Your task to perform on an android device: turn off translation in the chrome app Image 0: 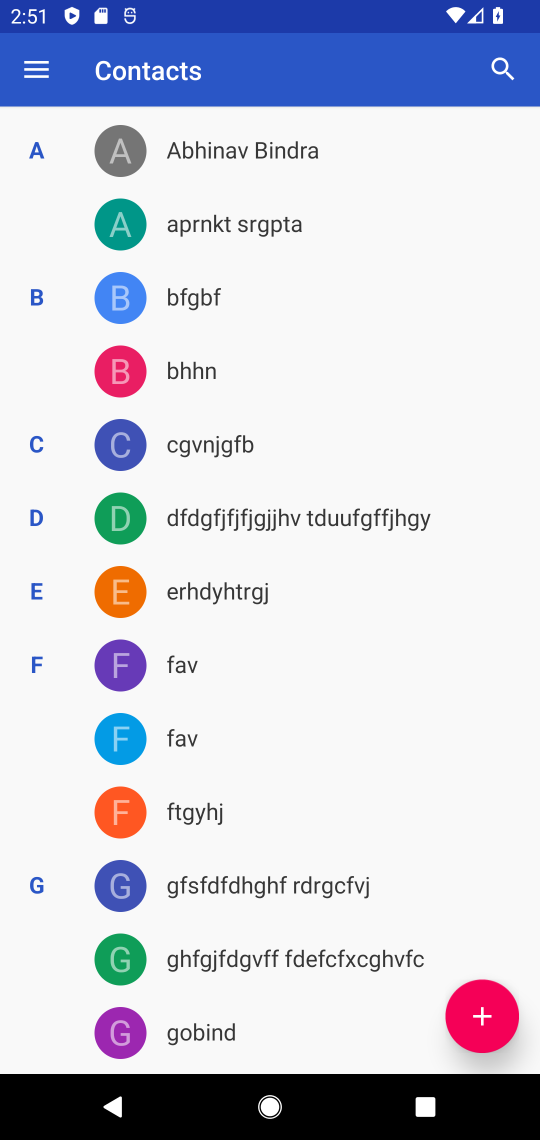
Step 0: press home button
Your task to perform on an android device: turn off translation in the chrome app Image 1: 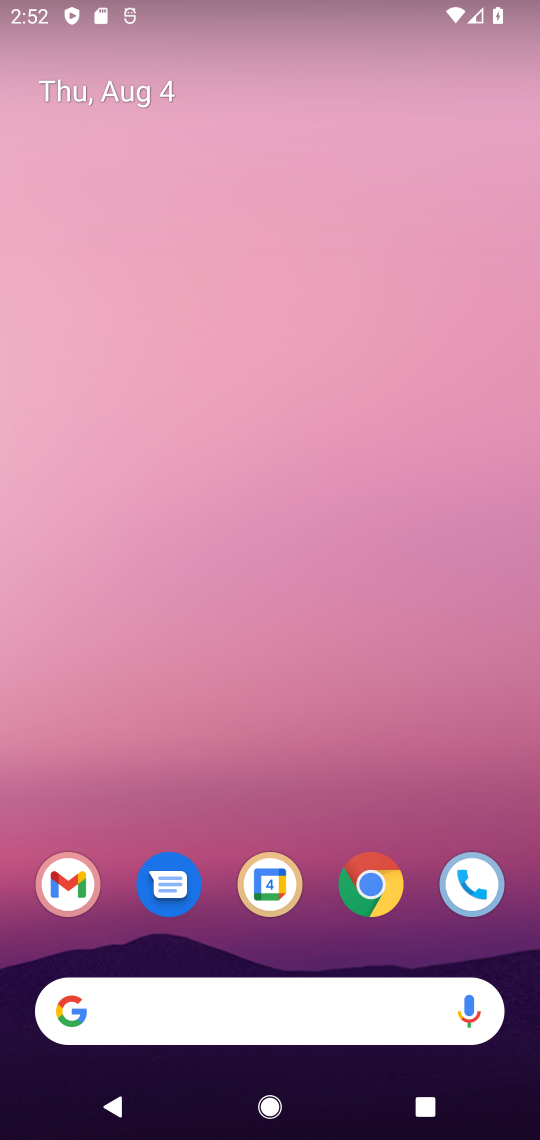
Step 1: drag from (205, 986) to (201, 340)
Your task to perform on an android device: turn off translation in the chrome app Image 2: 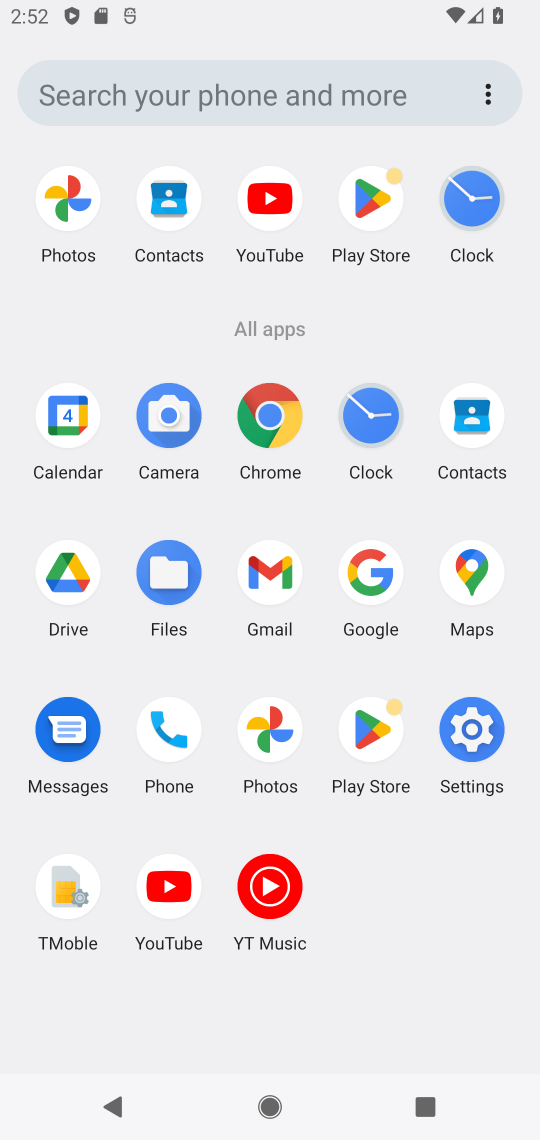
Step 2: click (276, 391)
Your task to perform on an android device: turn off translation in the chrome app Image 3: 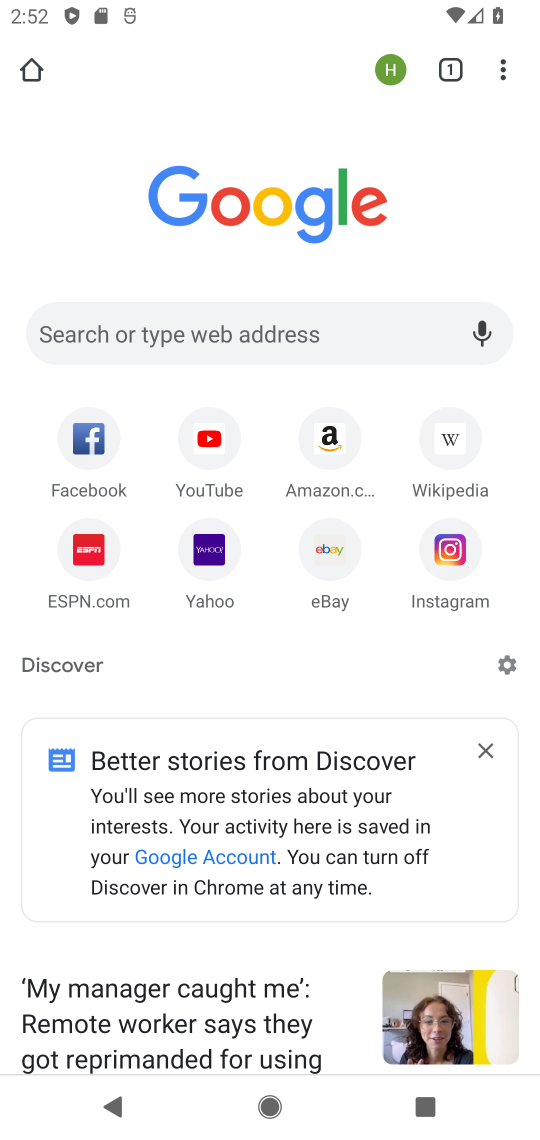
Step 3: click (505, 64)
Your task to perform on an android device: turn off translation in the chrome app Image 4: 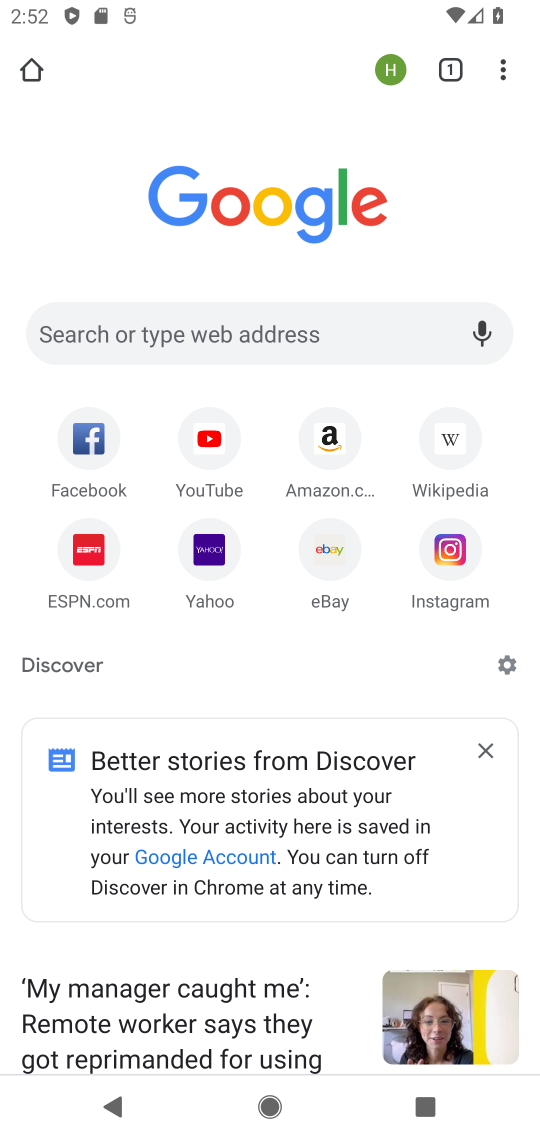
Step 4: click (505, 72)
Your task to perform on an android device: turn off translation in the chrome app Image 5: 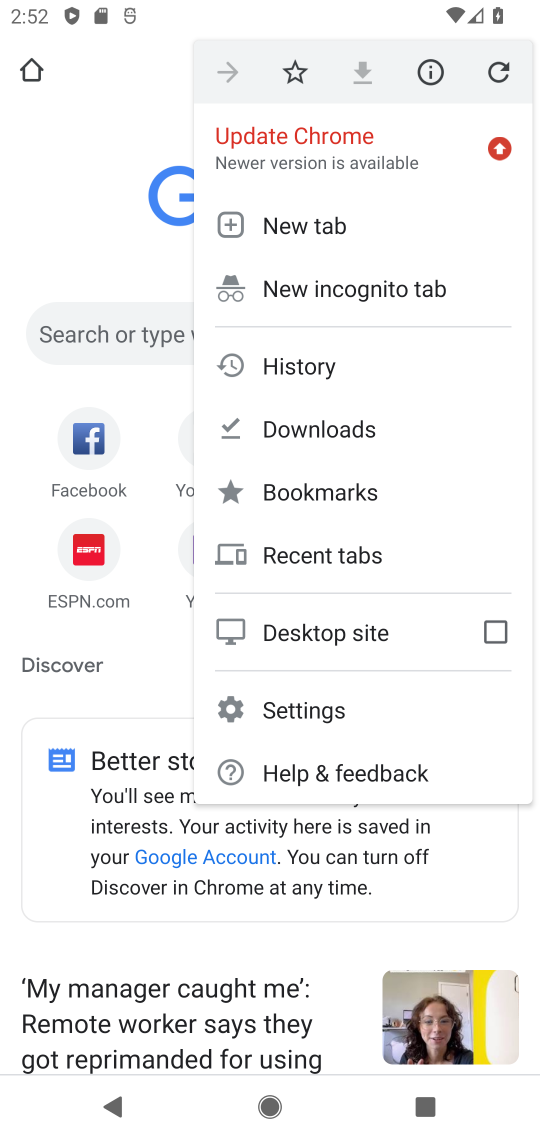
Step 5: click (305, 693)
Your task to perform on an android device: turn off translation in the chrome app Image 6: 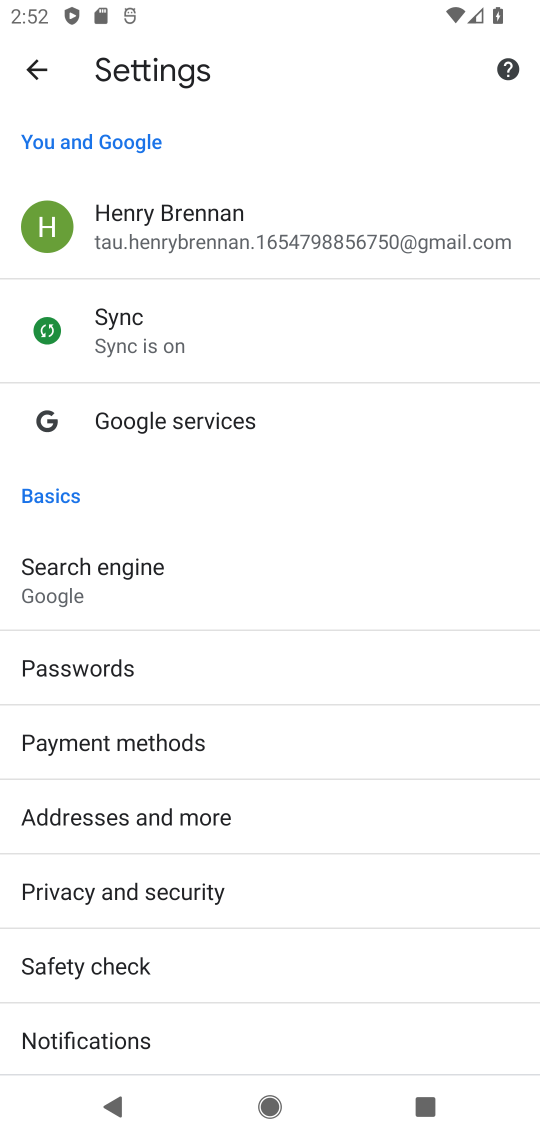
Step 6: drag from (151, 972) to (306, 333)
Your task to perform on an android device: turn off translation in the chrome app Image 7: 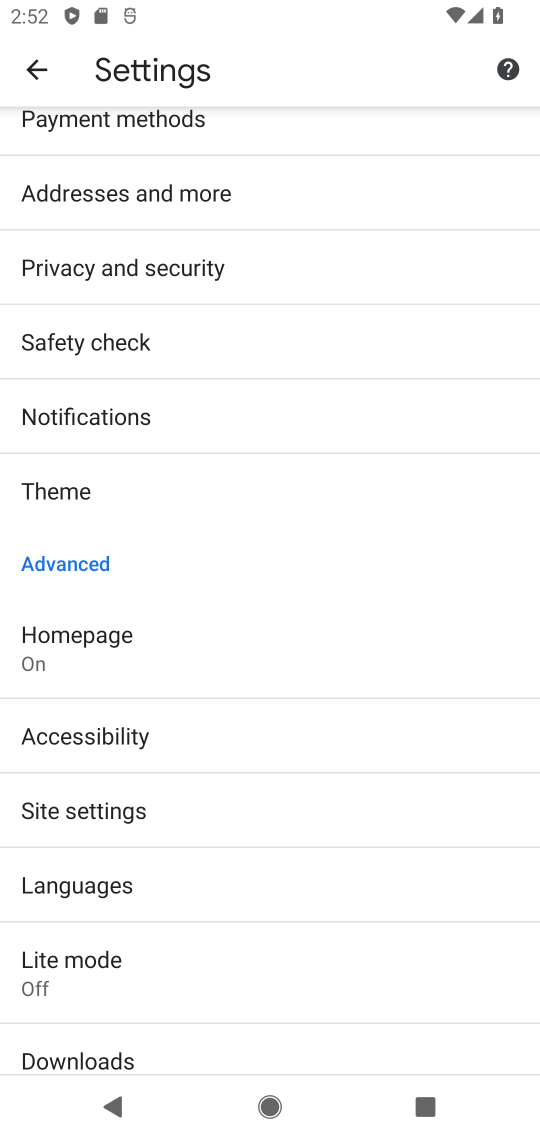
Step 7: click (133, 809)
Your task to perform on an android device: turn off translation in the chrome app Image 8: 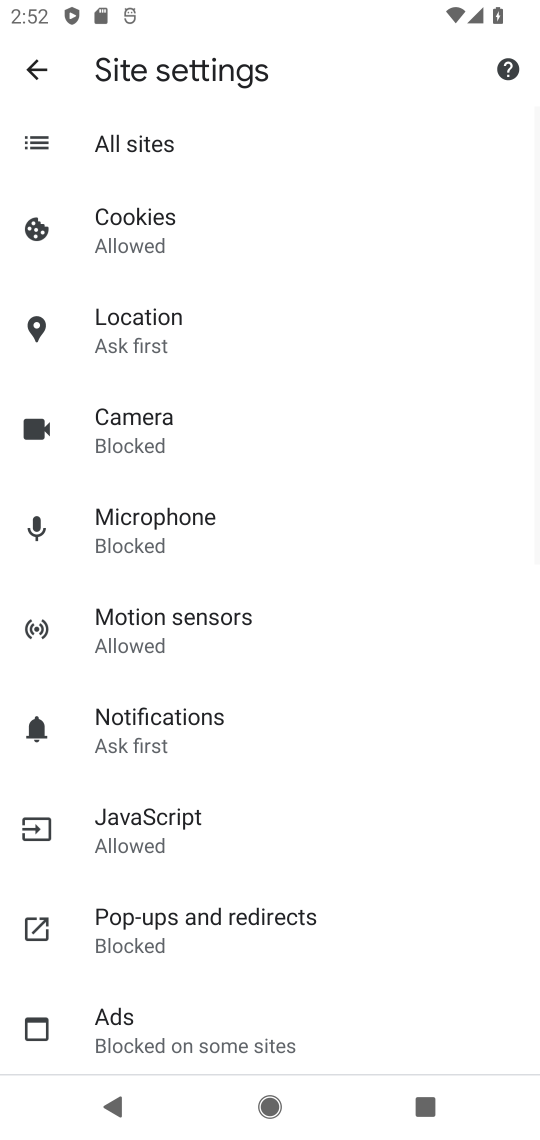
Step 8: click (10, 59)
Your task to perform on an android device: turn off translation in the chrome app Image 9: 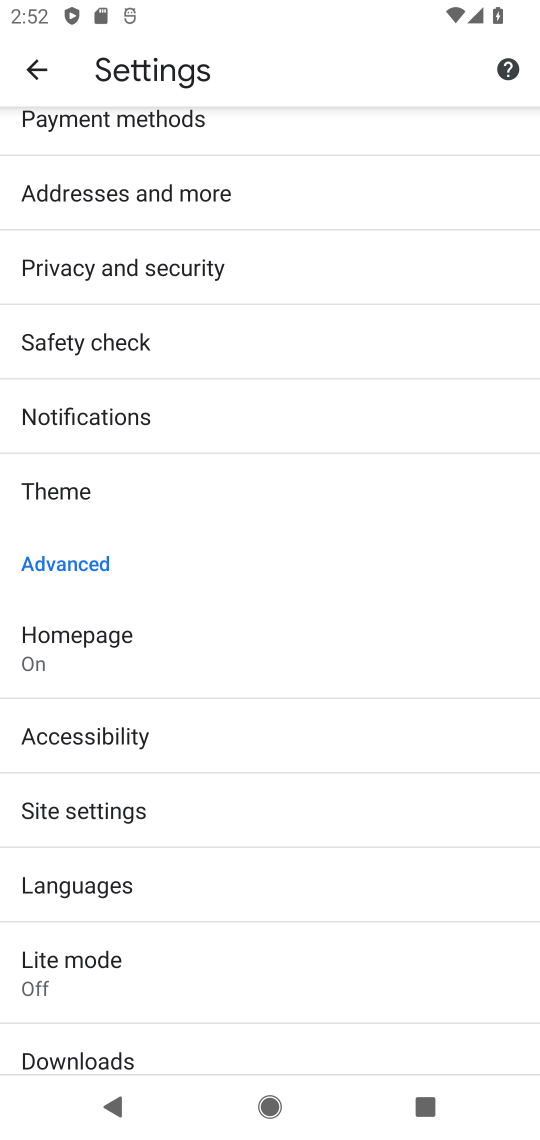
Step 9: click (115, 885)
Your task to perform on an android device: turn off translation in the chrome app Image 10: 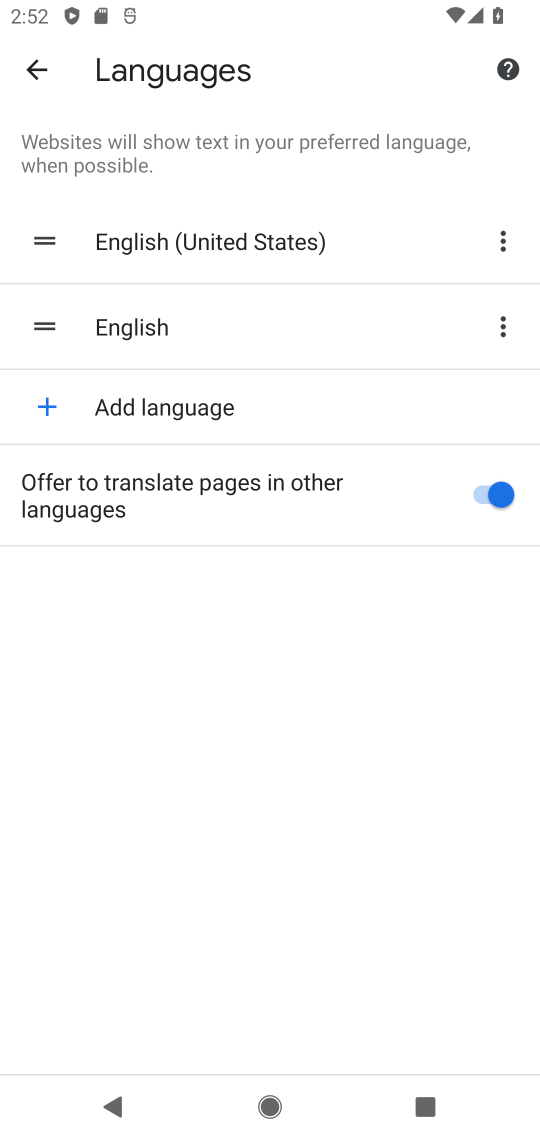
Step 10: click (506, 481)
Your task to perform on an android device: turn off translation in the chrome app Image 11: 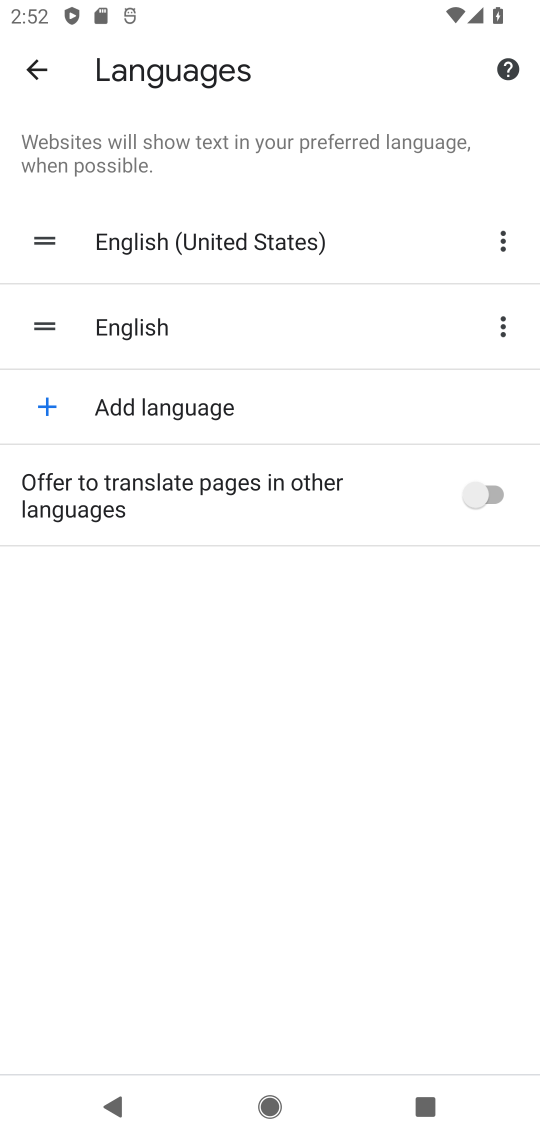
Step 11: task complete